Your task to perform on an android device: open chrome privacy settings Image 0: 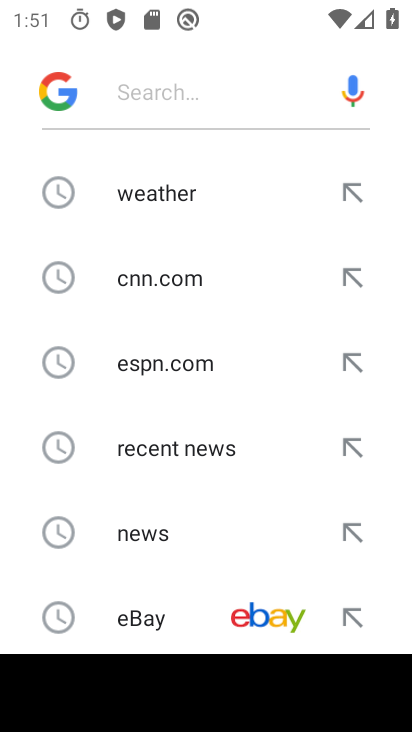
Step 0: press home button
Your task to perform on an android device: open chrome privacy settings Image 1: 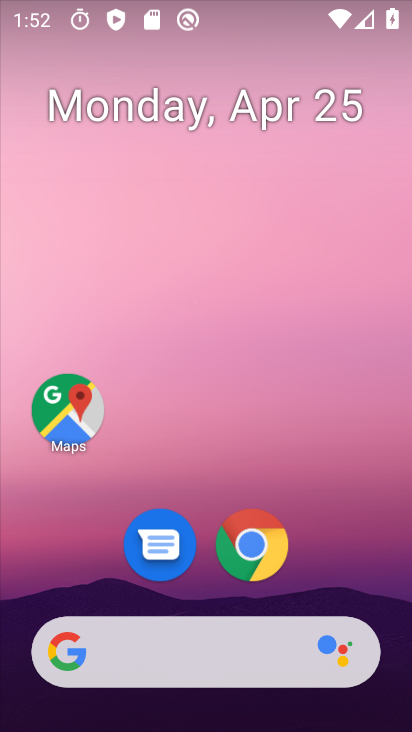
Step 1: click (260, 548)
Your task to perform on an android device: open chrome privacy settings Image 2: 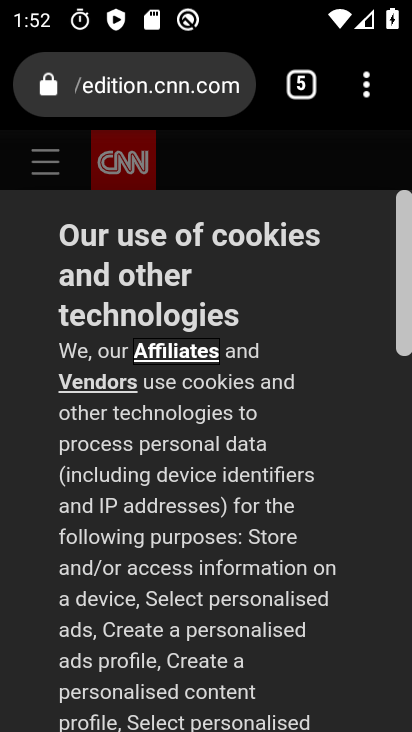
Step 2: click (372, 81)
Your task to perform on an android device: open chrome privacy settings Image 3: 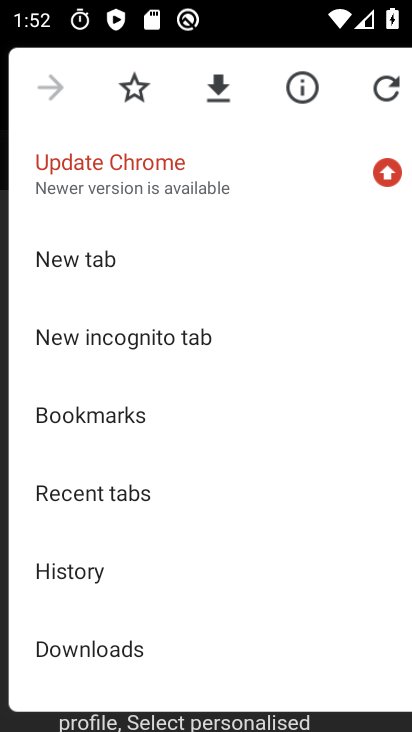
Step 3: drag from (179, 605) to (165, 232)
Your task to perform on an android device: open chrome privacy settings Image 4: 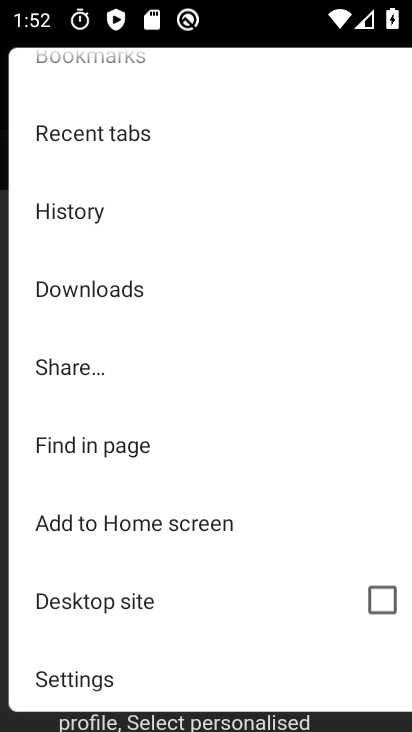
Step 4: click (117, 679)
Your task to perform on an android device: open chrome privacy settings Image 5: 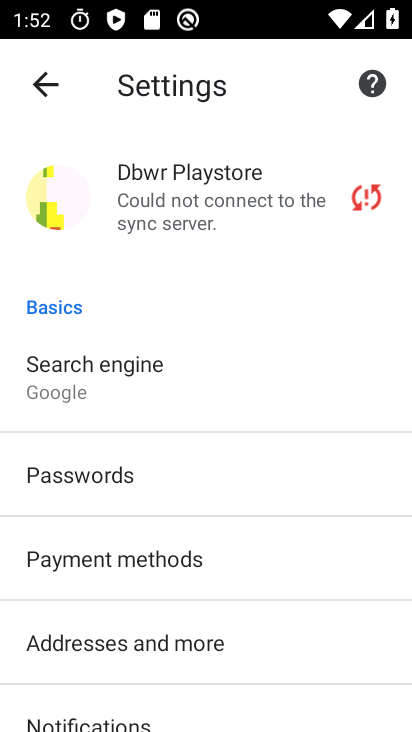
Step 5: drag from (265, 559) to (248, 215)
Your task to perform on an android device: open chrome privacy settings Image 6: 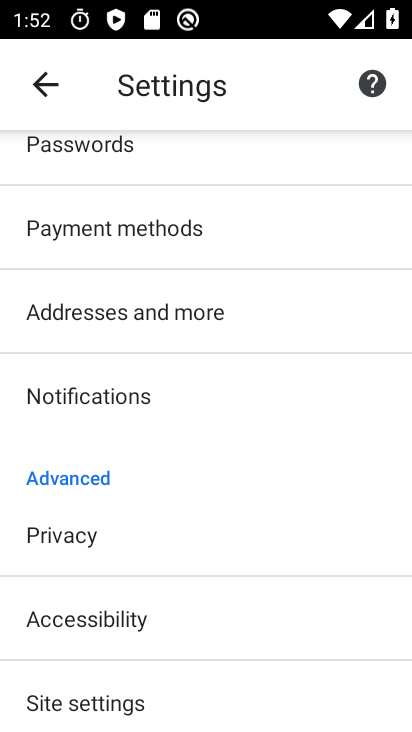
Step 6: click (108, 540)
Your task to perform on an android device: open chrome privacy settings Image 7: 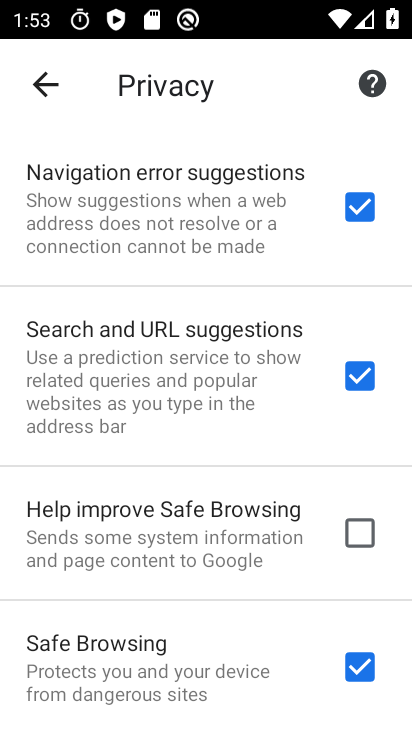
Step 7: task complete